Your task to perform on an android device: set the stopwatch Image 0: 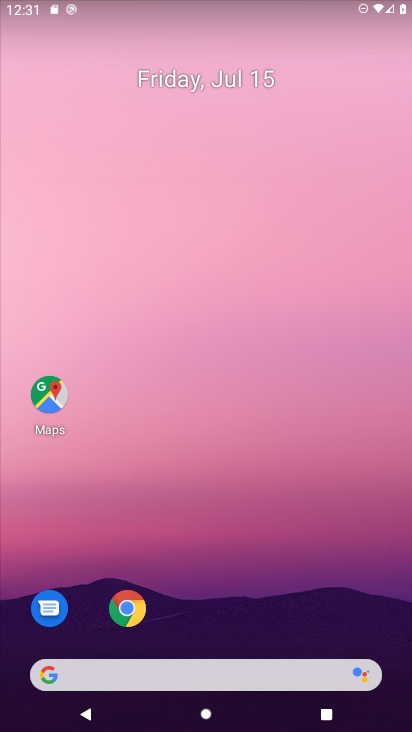
Step 0: drag from (314, 678) to (348, 241)
Your task to perform on an android device: set the stopwatch Image 1: 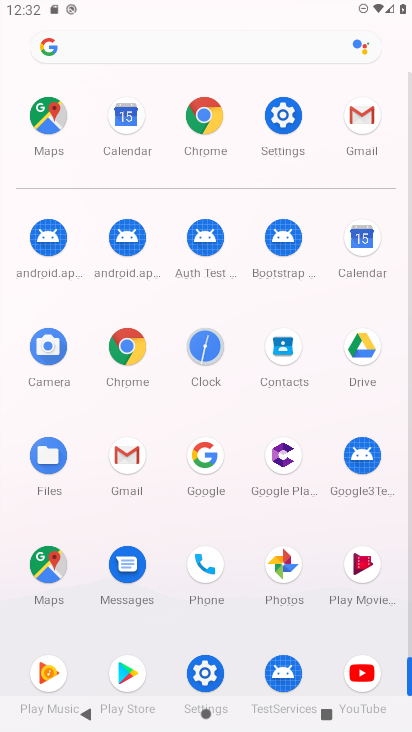
Step 1: click (192, 354)
Your task to perform on an android device: set the stopwatch Image 2: 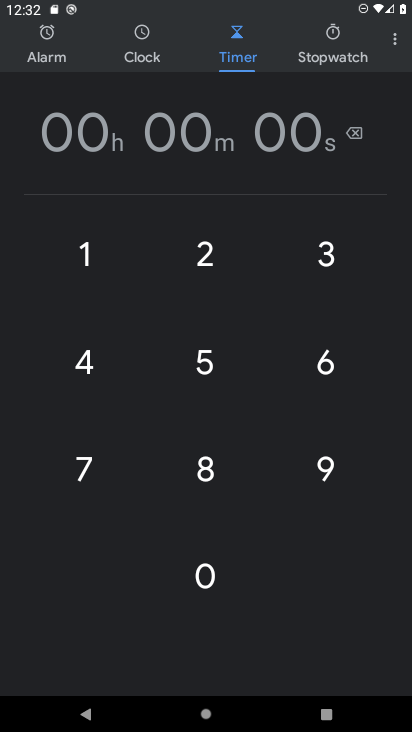
Step 2: click (338, 51)
Your task to perform on an android device: set the stopwatch Image 3: 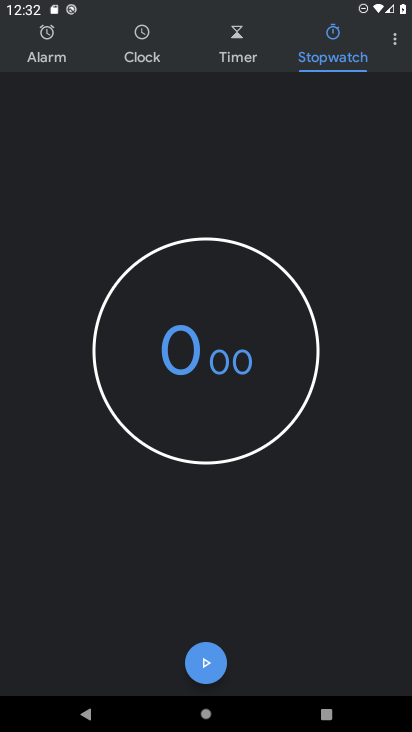
Step 3: click (220, 654)
Your task to perform on an android device: set the stopwatch Image 4: 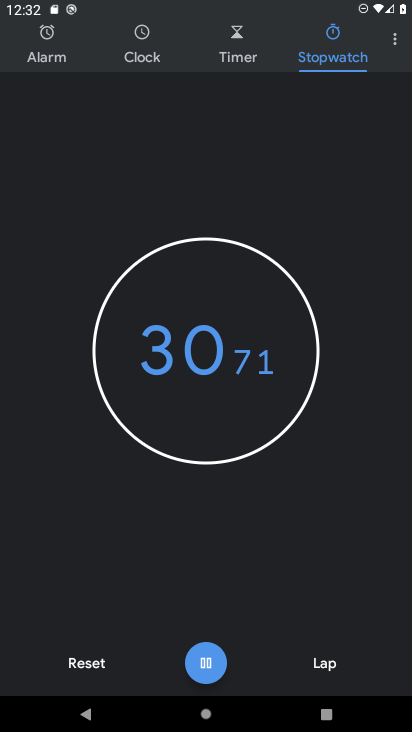
Step 4: task complete